Your task to perform on an android device: Toggle the flashlight Image 0: 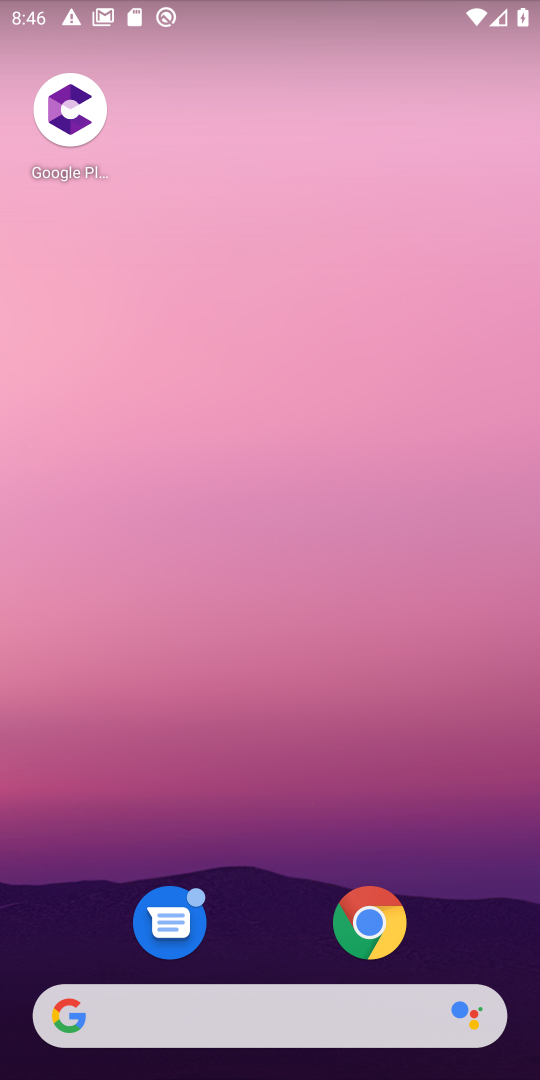
Step 0: drag from (318, 12) to (367, 531)
Your task to perform on an android device: Toggle the flashlight Image 1: 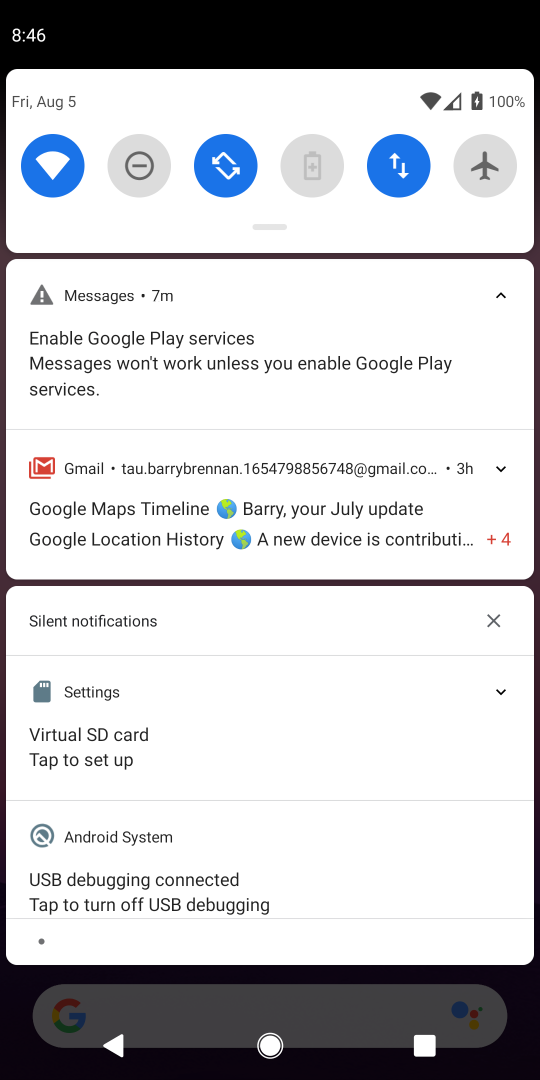
Step 1: drag from (279, 203) to (491, 966)
Your task to perform on an android device: Toggle the flashlight Image 2: 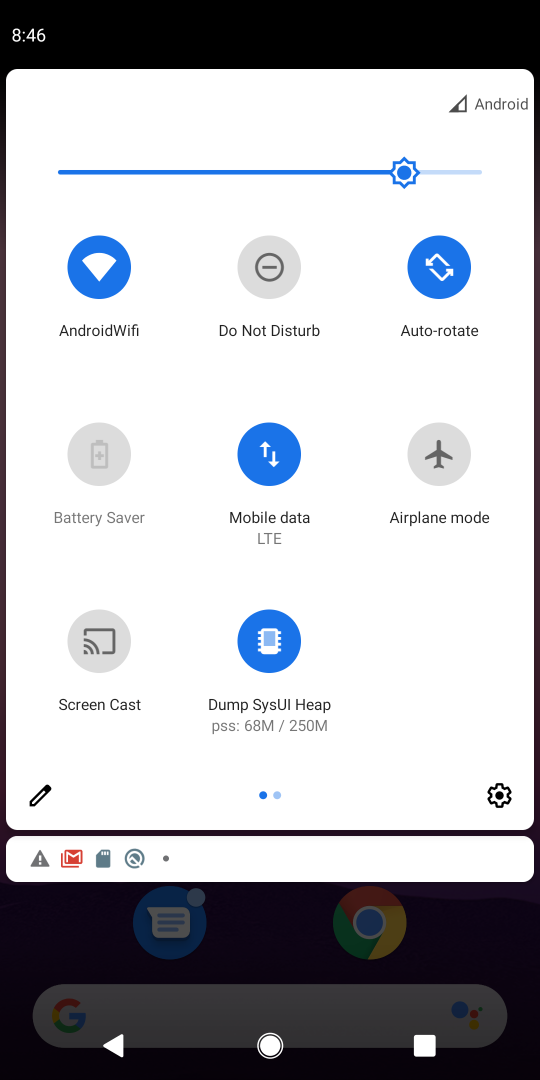
Step 2: click (41, 792)
Your task to perform on an android device: Toggle the flashlight Image 3: 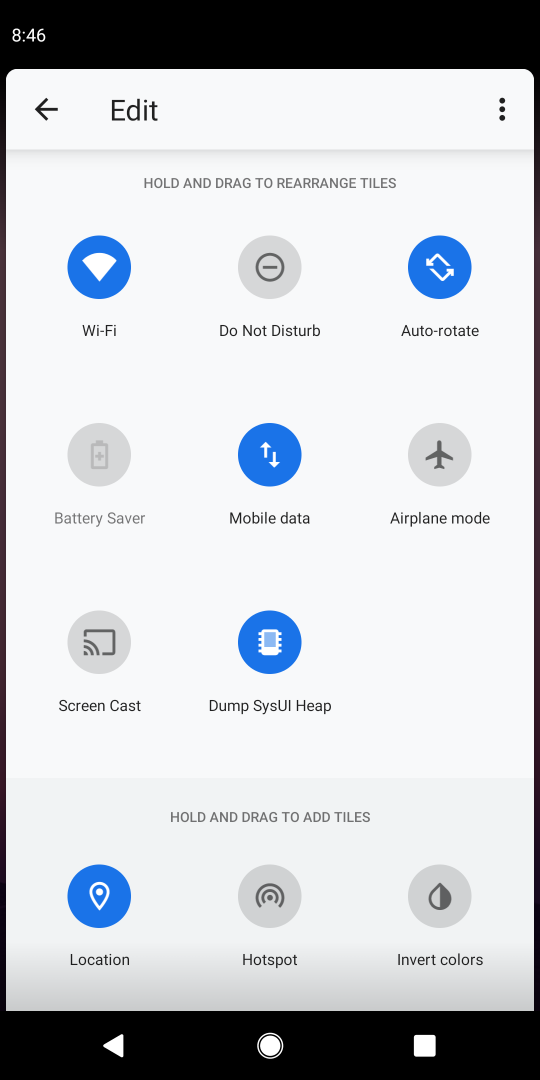
Step 3: task complete